Your task to perform on an android device: turn on showing notifications on the lock screen Image 0: 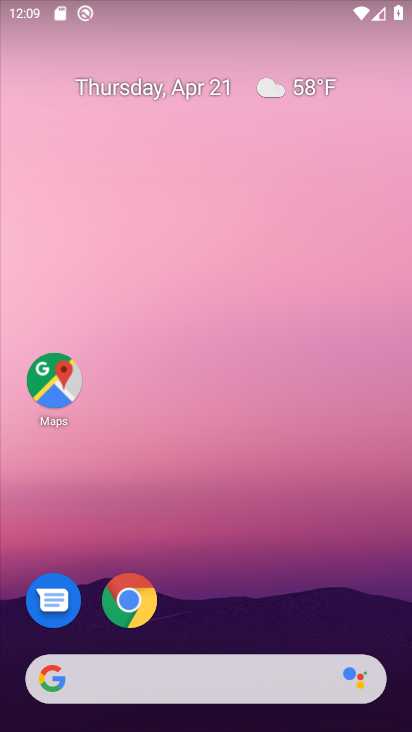
Step 0: drag from (242, 532) to (321, 143)
Your task to perform on an android device: turn on showing notifications on the lock screen Image 1: 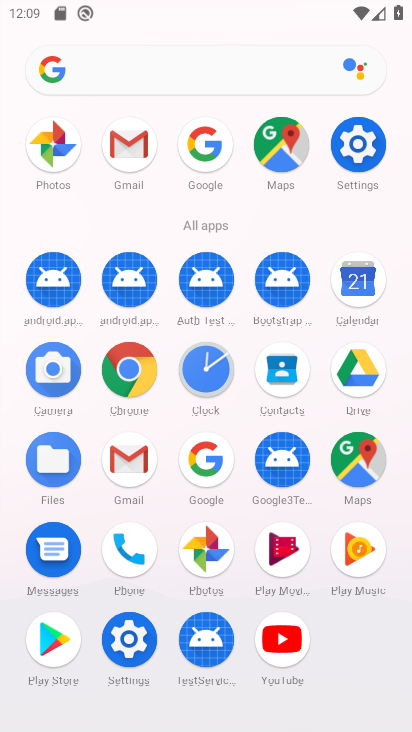
Step 1: click (365, 135)
Your task to perform on an android device: turn on showing notifications on the lock screen Image 2: 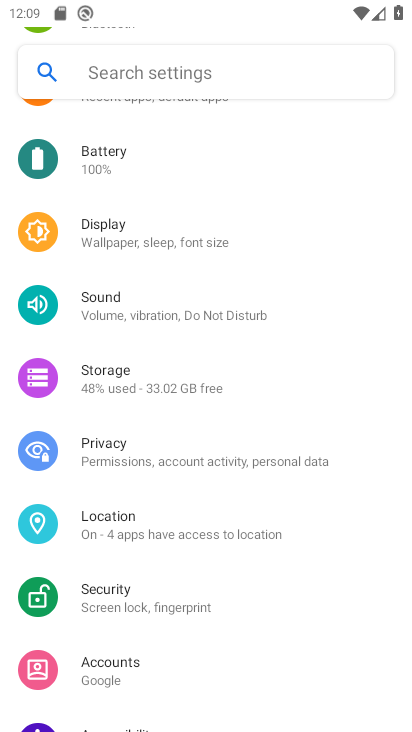
Step 2: drag from (204, 203) to (239, 522)
Your task to perform on an android device: turn on showing notifications on the lock screen Image 3: 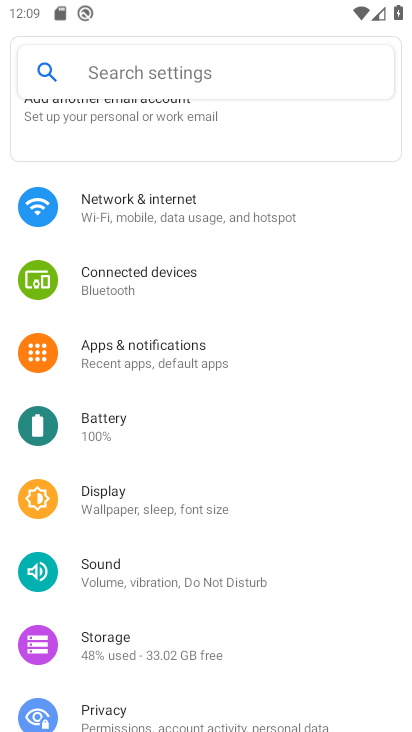
Step 3: click (222, 357)
Your task to perform on an android device: turn on showing notifications on the lock screen Image 4: 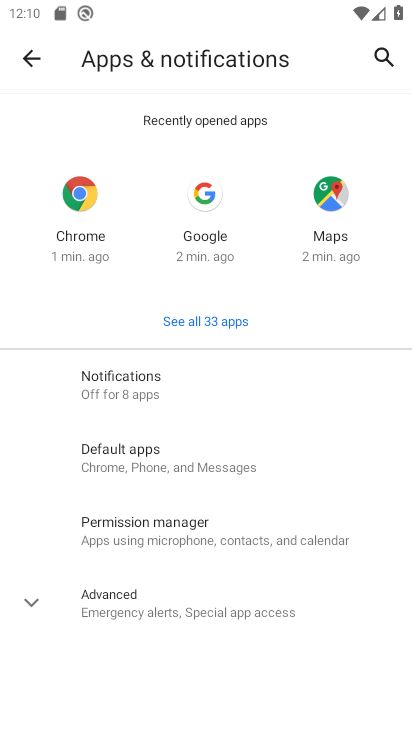
Step 4: click (212, 386)
Your task to perform on an android device: turn on showing notifications on the lock screen Image 5: 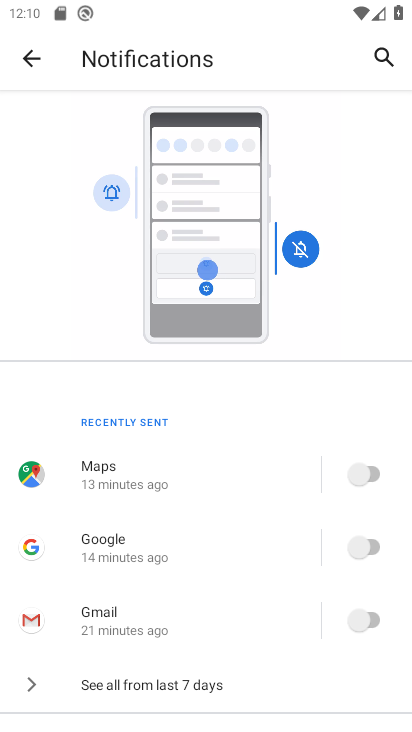
Step 5: drag from (194, 624) to (249, 323)
Your task to perform on an android device: turn on showing notifications on the lock screen Image 6: 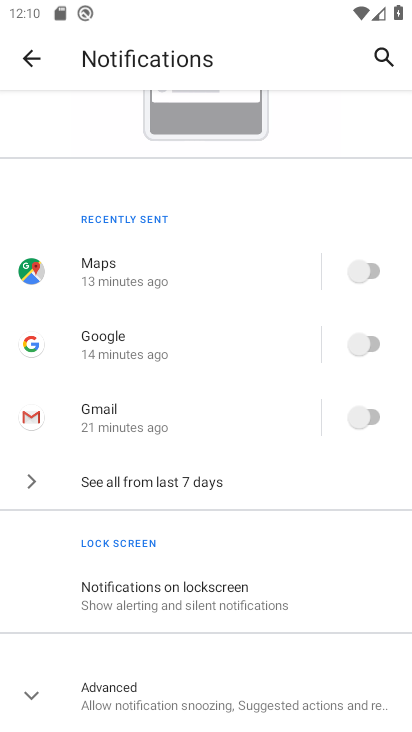
Step 6: click (207, 595)
Your task to perform on an android device: turn on showing notifications on the lock screen Image 7: 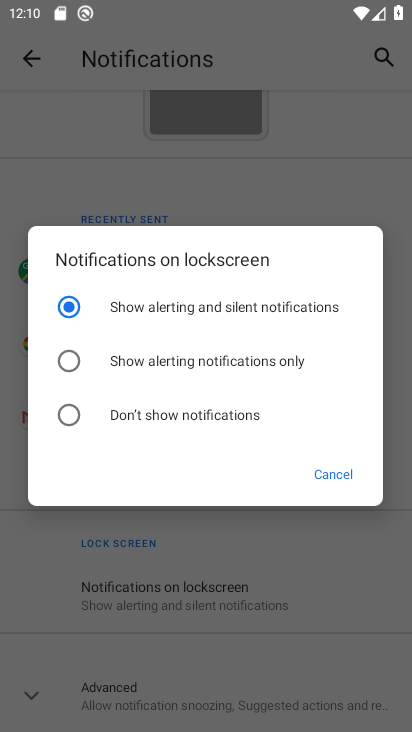
Step 7: click (325, 474)
Your task to perform on an android device: turn on showing notifications on the lock screen Image 8: 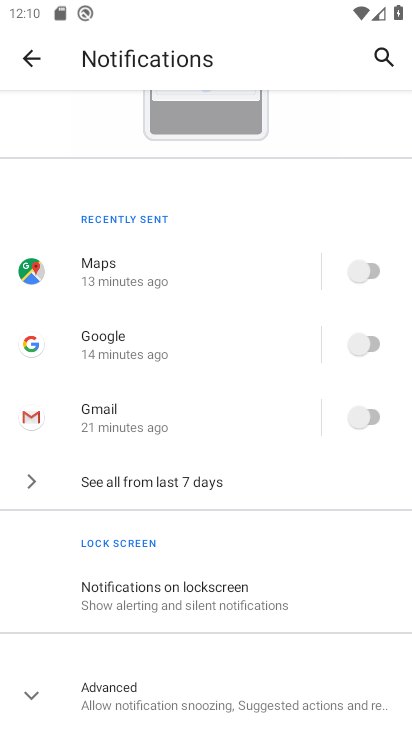
Step 8: task complete